Your task to perform on an android device: Set the phone to "Do not disturb". Image 0: 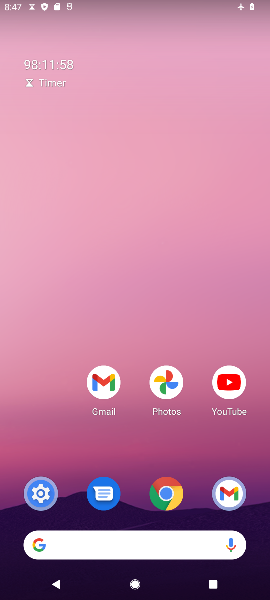
Step 0: drag from (93, 6) to (96, 336)
Your task to perform on an android device: Set the phone to "Do not disturb". Image 1: 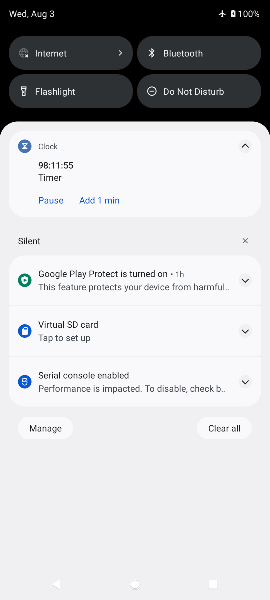
Step 1: click (198, 84)
Your task to perform on an android device: Set the phone to "Do not disturb". Image 2: 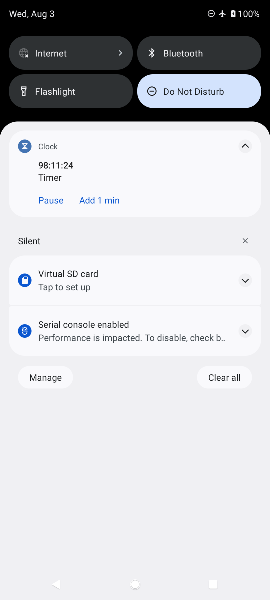
Step 2: task complete